Your task to perform on an android device: Go to battery settings Image 0: 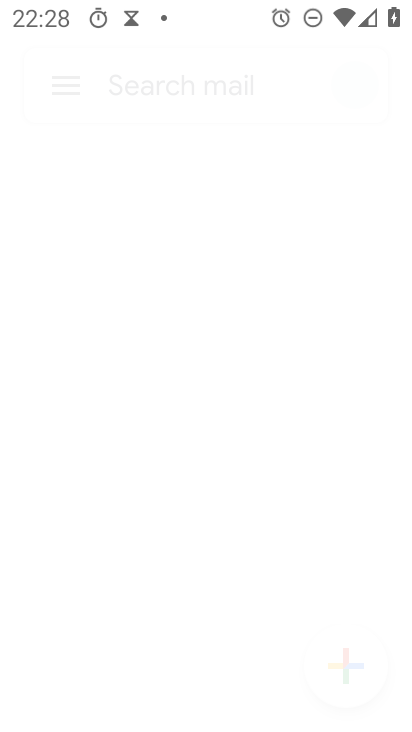
Step 0: drag from (218, 724) to (208, 211)
Your task to perform on an android device: Go to battery settings Image 1: 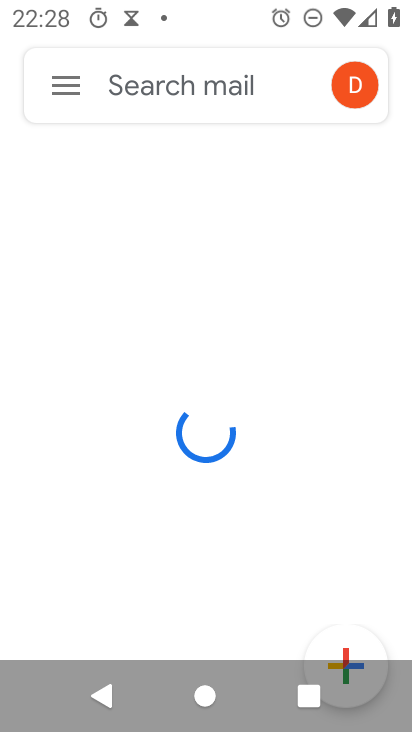
Step 1: press home button
Your task to perform on an android device: Go to battery settings Image 2: 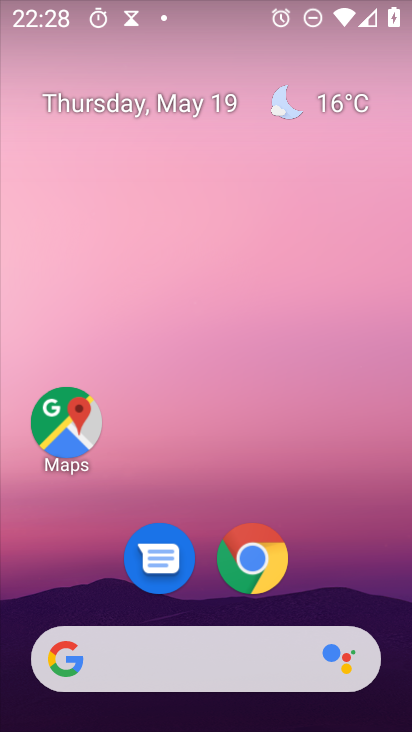
Step 2: drag from (217, 710) to (211, 158)
Your task to perform on an android device: Go to battery settings Image 3: 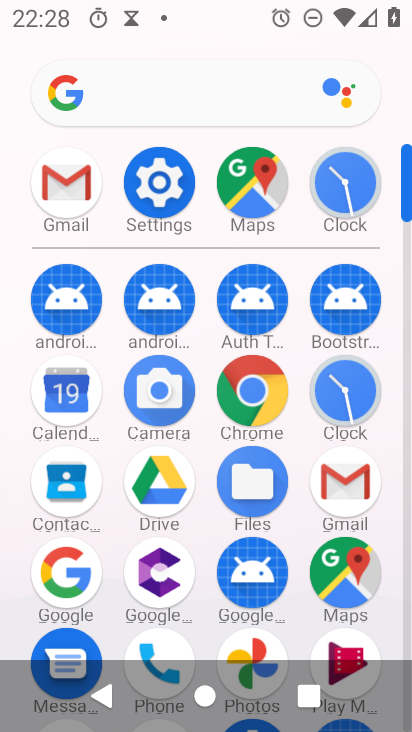
Step 3: click (165, 190)
Your task to perform on an android device: Go to battery settings Image 4: 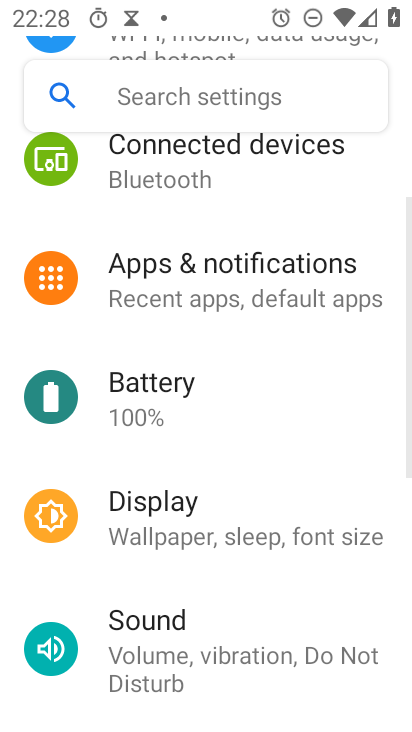
Step 4: click (150, 386)
Your task to perform on an android device: Go to battery settings Image 5: 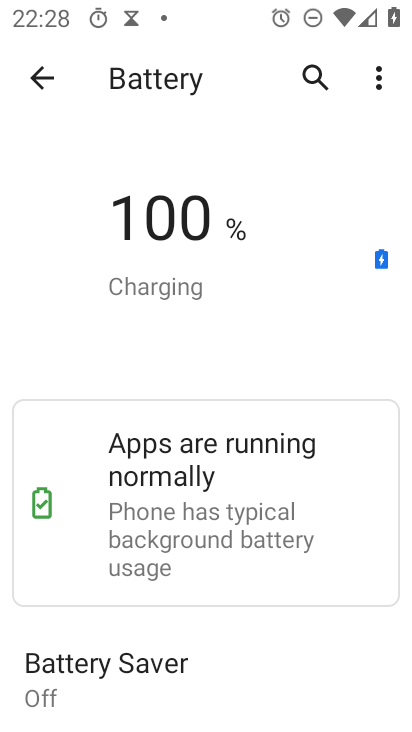
Step 5: task complete